Your task to perform on an android device: What is the news today? Image 0: 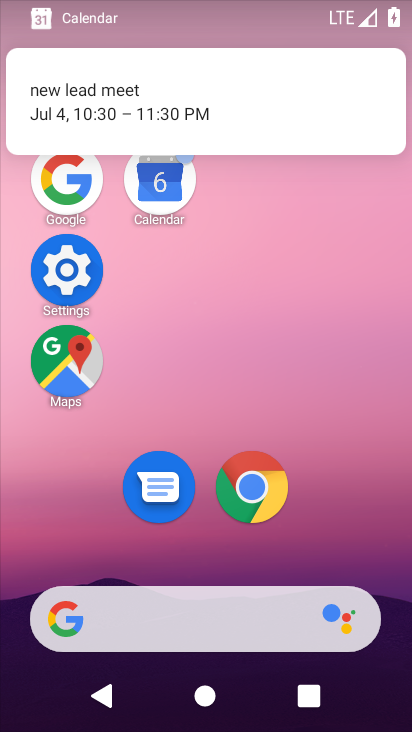
Step 0: click (372, 16)
Your task to perform on an android device: What is the news today? Image 1: 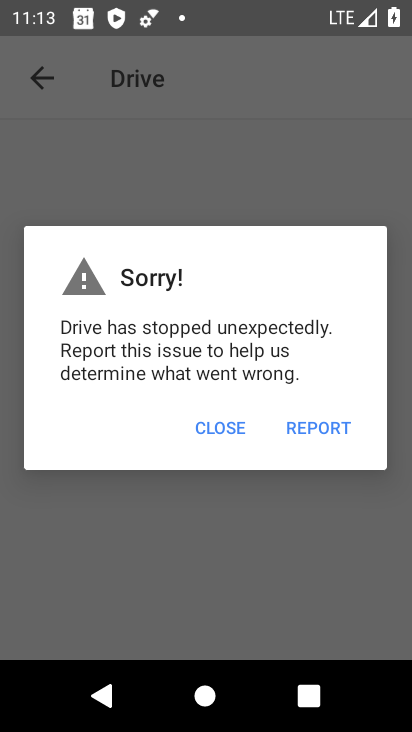
Step 1: press home button
Your task to perform on an android device: What is the news today? Image 2: 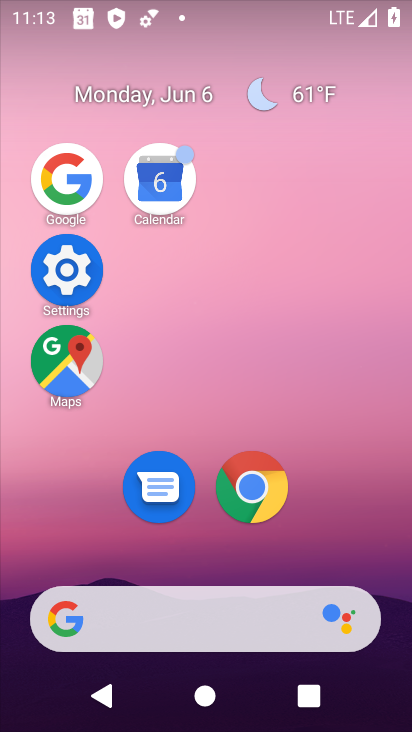
Step 2: click (87, 175)
Your task to perform on an android device: What is the news today? Image 3: 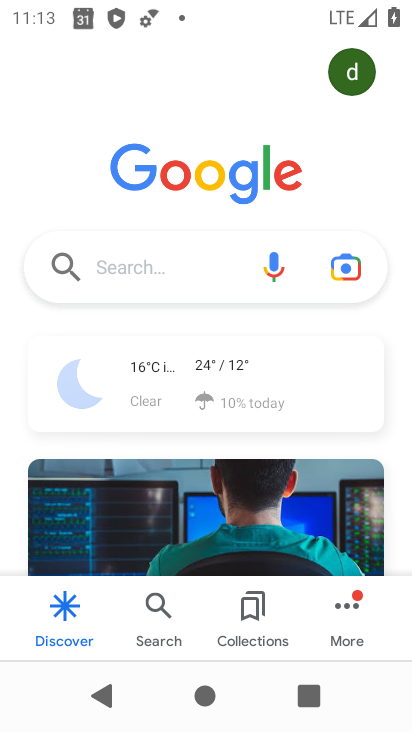
Step 3: click (205, 264)
Your task to perform on an android device: What is the news today? Image 4: 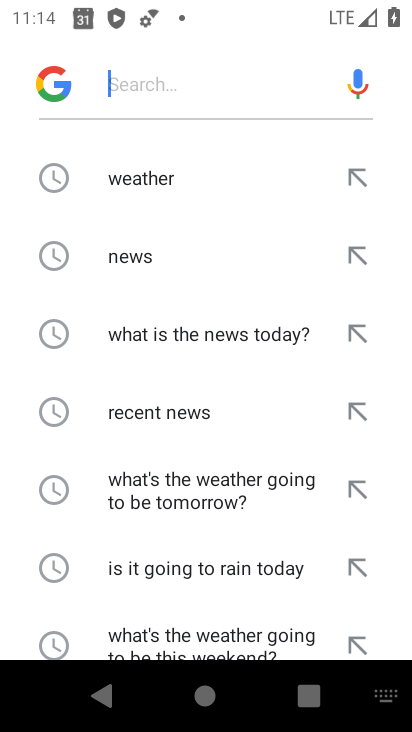
Step 4: click (188, 280)
Your task to perform on an android device: What is the news today? Image 5: 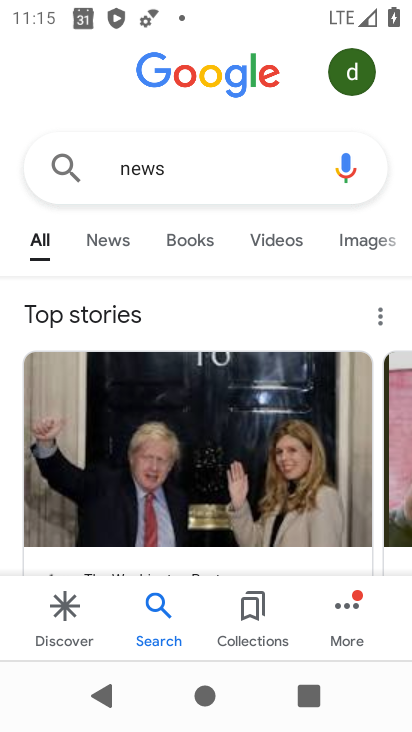
Step 5: task complete